Your task to perform on an android device: open device folders in google photos Image 0: 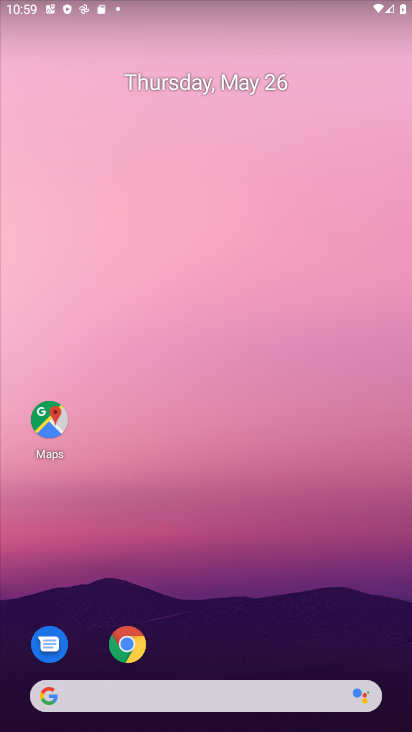
Step 0: drag from (335, 633) to (385, 82)
Your task to perform on an android device: open device folders in google photos Image 1: 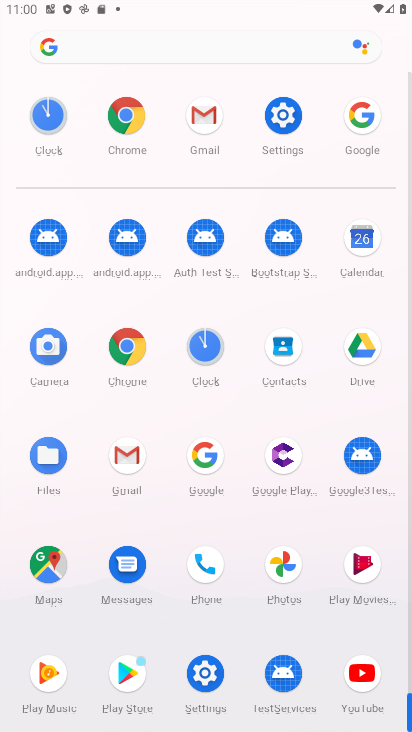
Step 1: click (274, 560)
Your task to perform on an android device: open device folders in google photos Image 2: 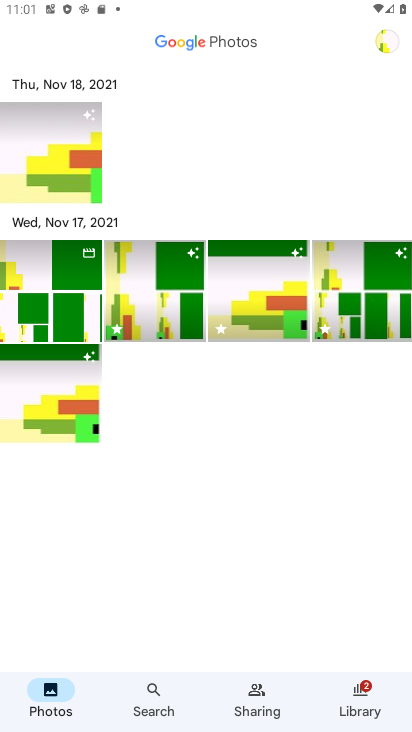
Step 2: task complete